Your task to perform on an android device: turn off javascript in the chrome app Image 0: 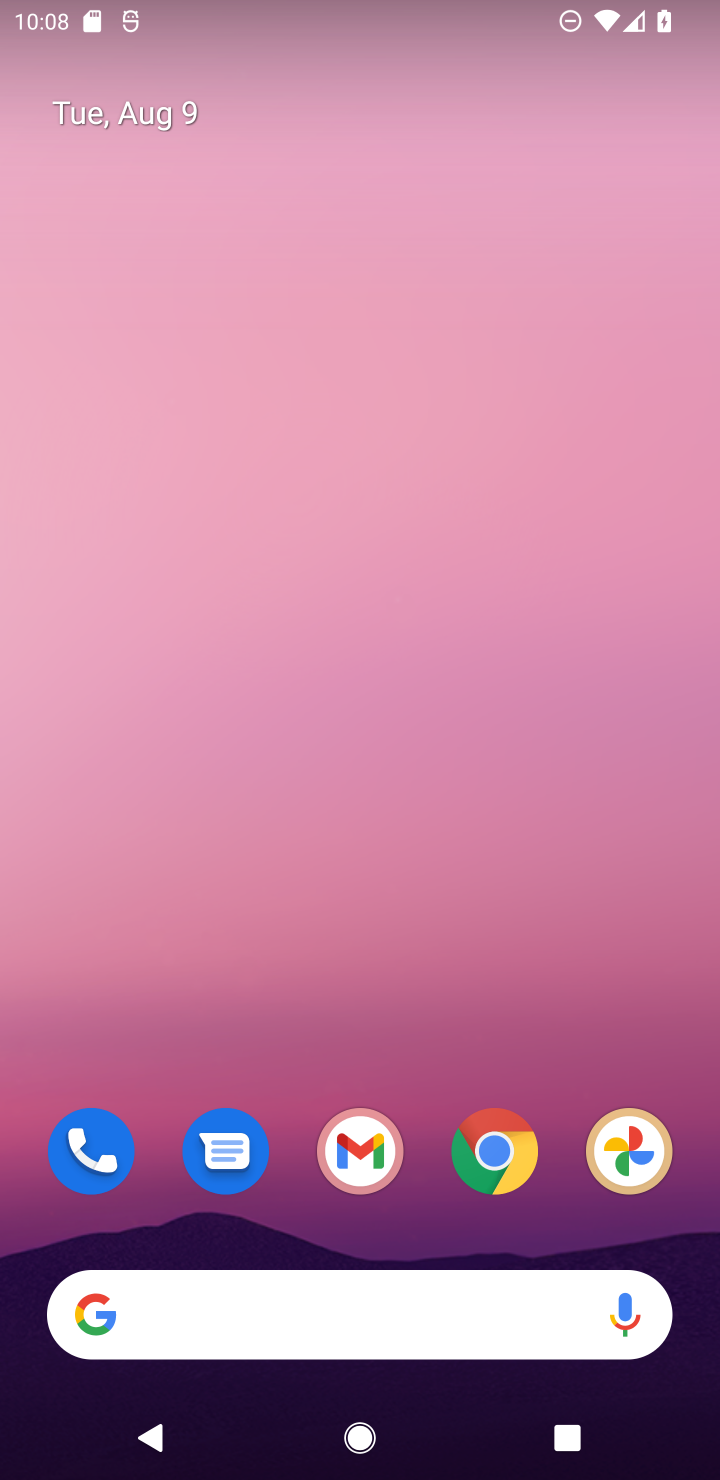
Step 0: click (494, 1138)
Your task to perform on an android device: turn off javascript in the chrome app Image 1: 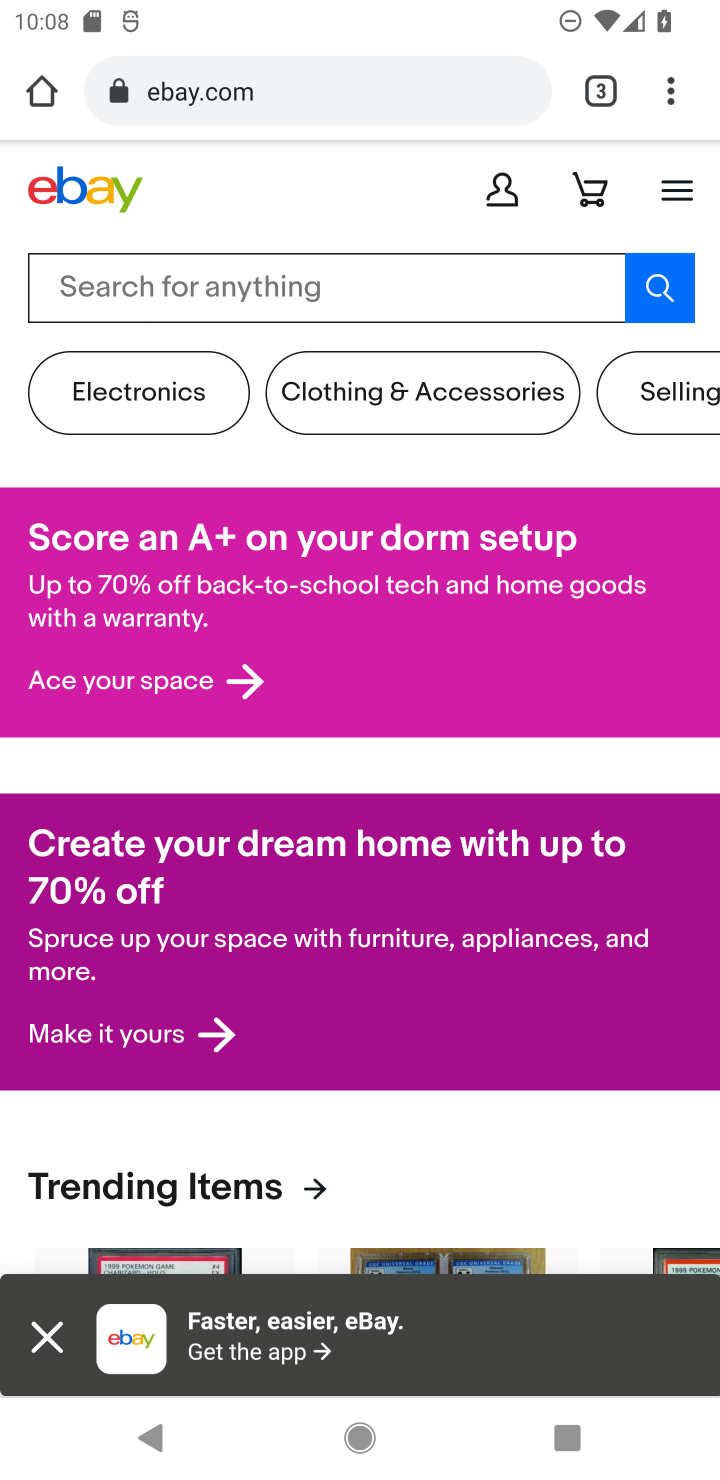
Step 1: click (703, 103)
Your task to perform on an android device: turn off javascript in the chrome app Image 2: 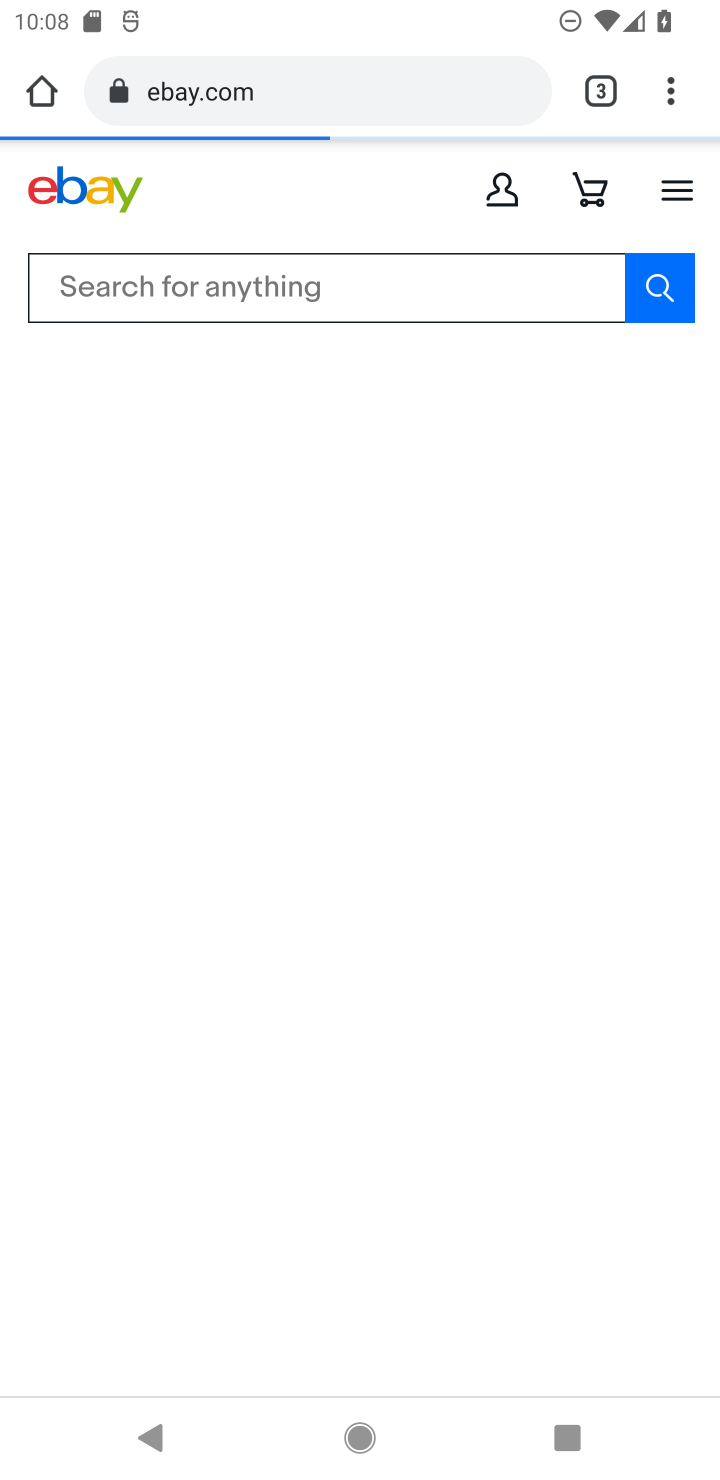
Step 2: click (678, 102)
Your task to perform on an android device: turn off javascript in the chrome app Image 3: 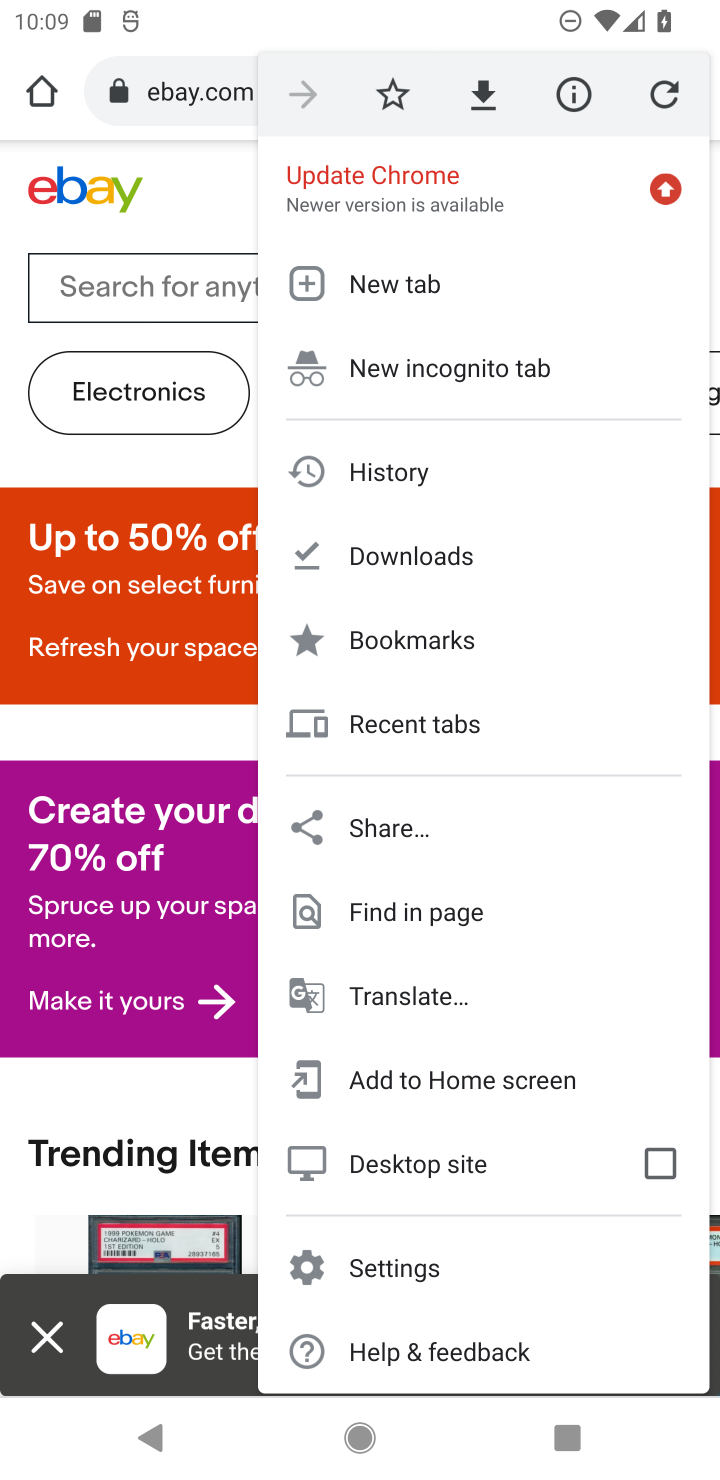
Step 3: click (403, 1271)
Your task to perform on an android device: turn off javascript in the chrome app Image 4: 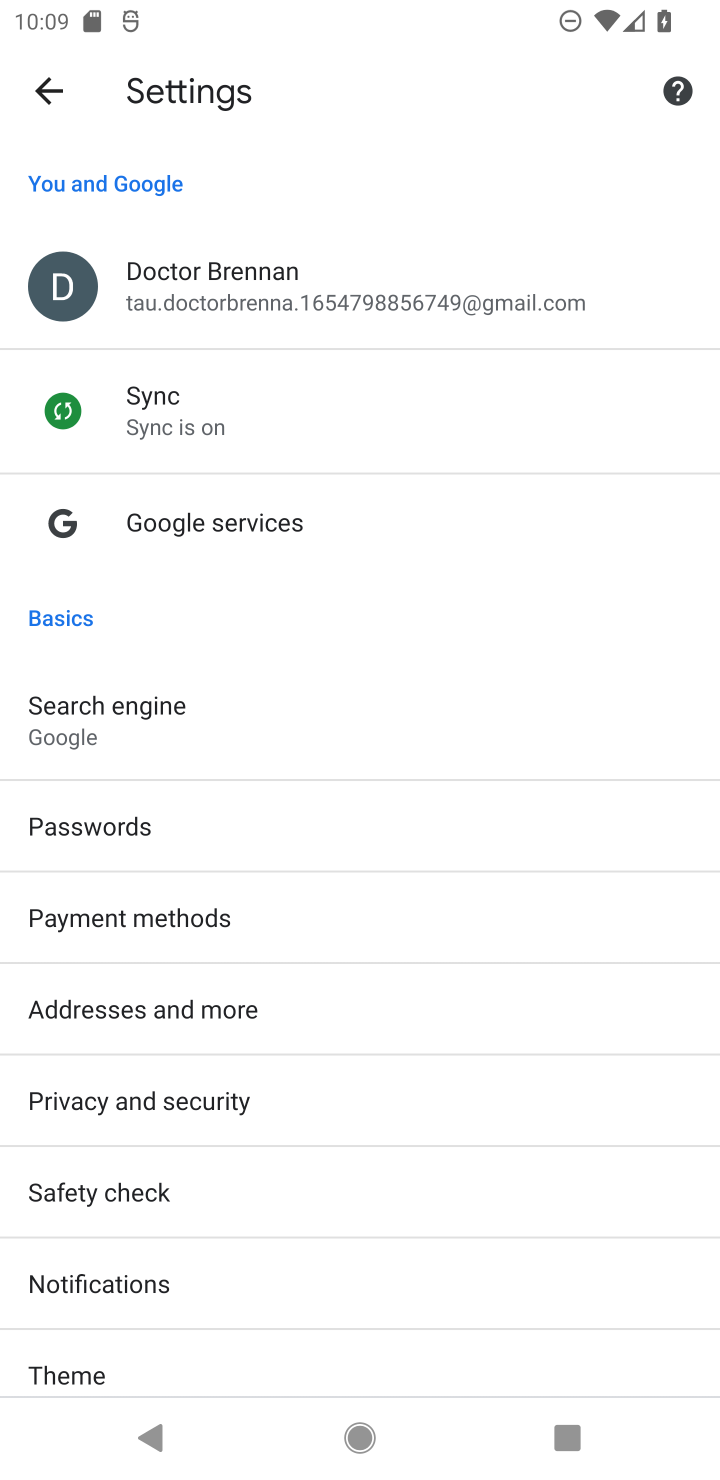
Step 4: drag from (212, 1298) to (191, 304)
Your task to perform on an android device: turn off javascript in the chrome app Image 5: 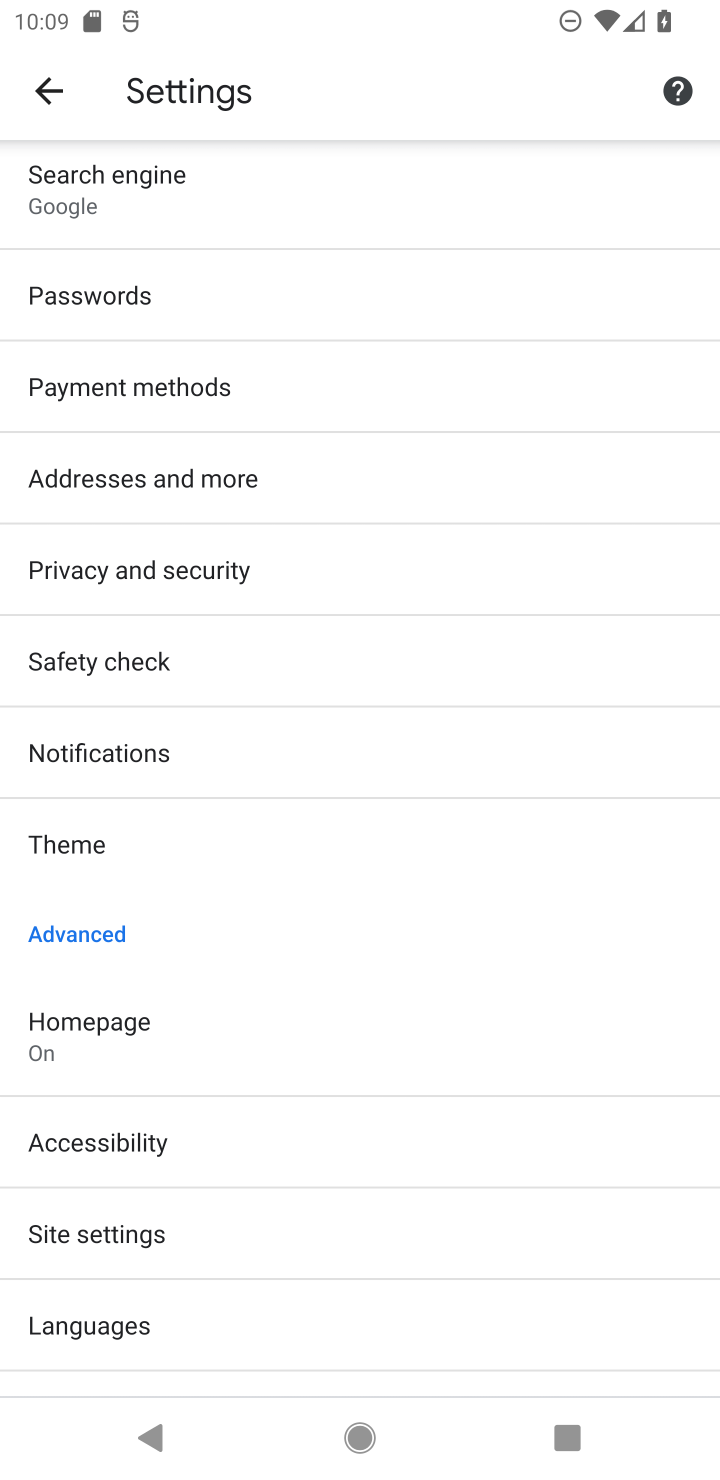
Step 5: click (128, 1239)
Your task to perform on an android device: turn off javascript in the chrome app Image 6: 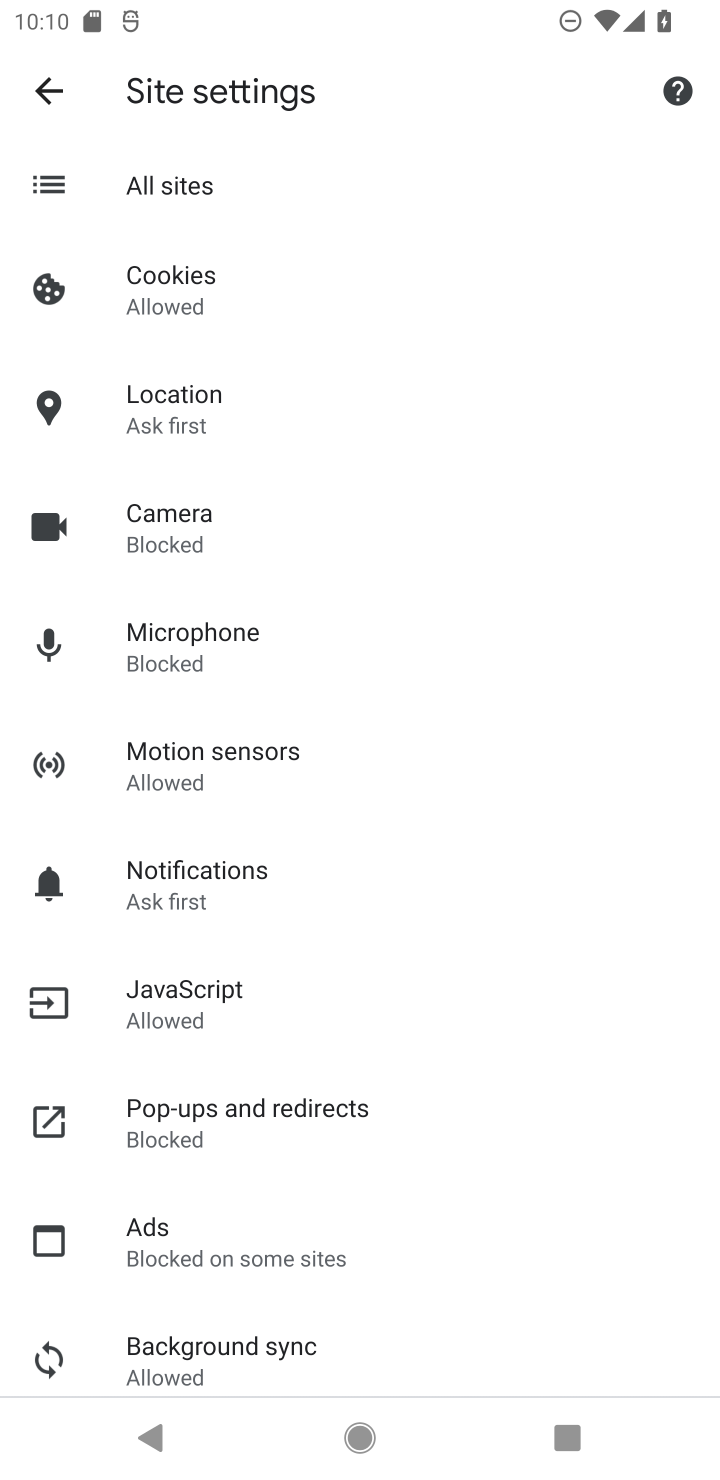
Step 6: click (223, 989)
Your task to perform on an android device: turn off javascript in the chrome app Image 7: 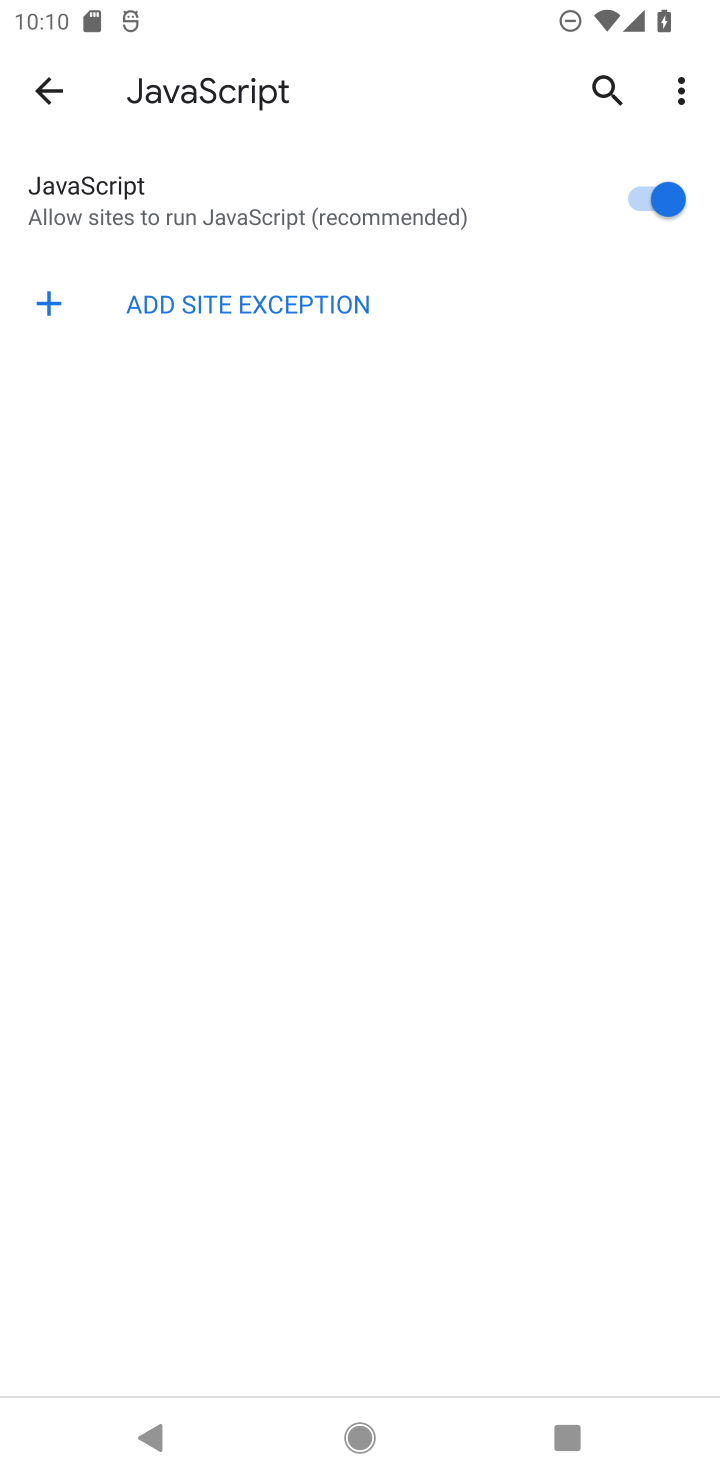
Step 7: click (655, 199)
Your task to perform on an android device: turn off javascript in the chrome app Image 8: 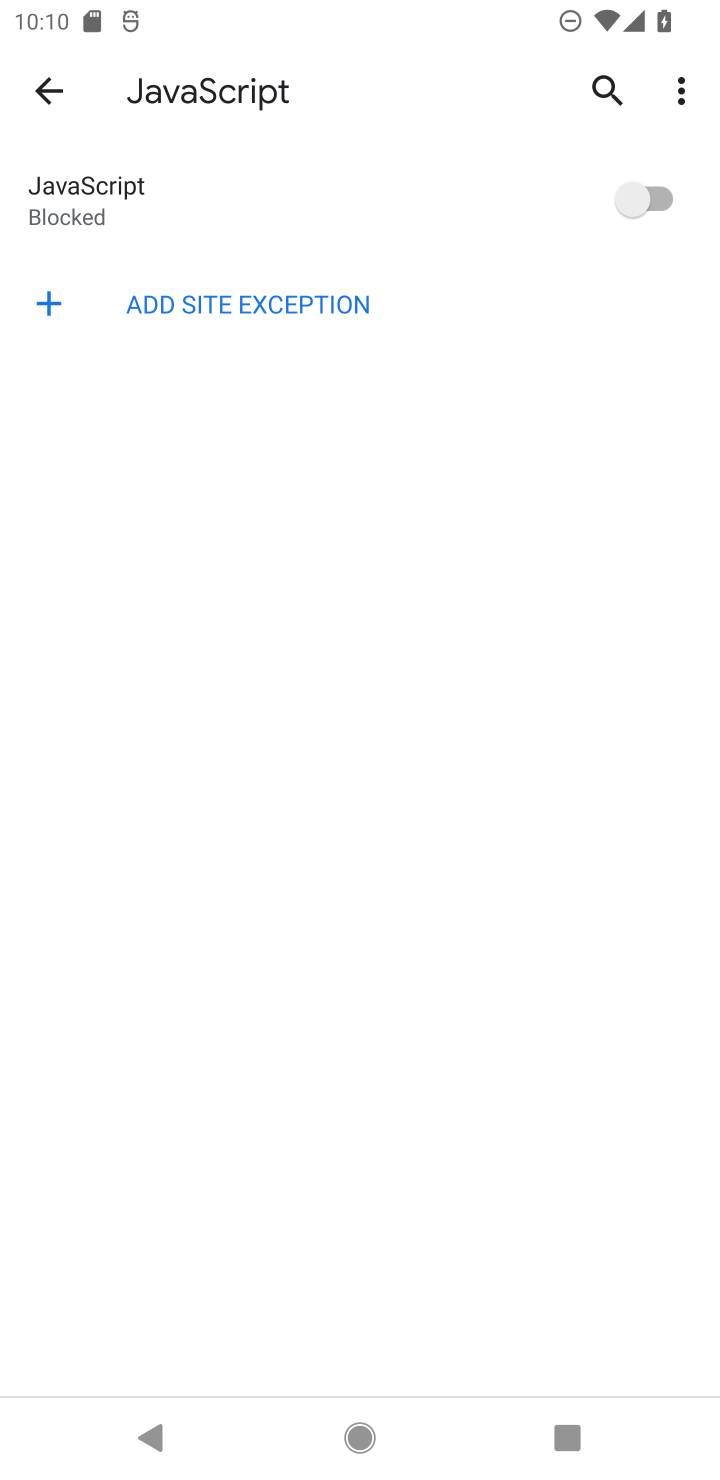
Step 8: task complete